Your task to perform on an android device: What's the weather going to be tomorrow? Image 0: 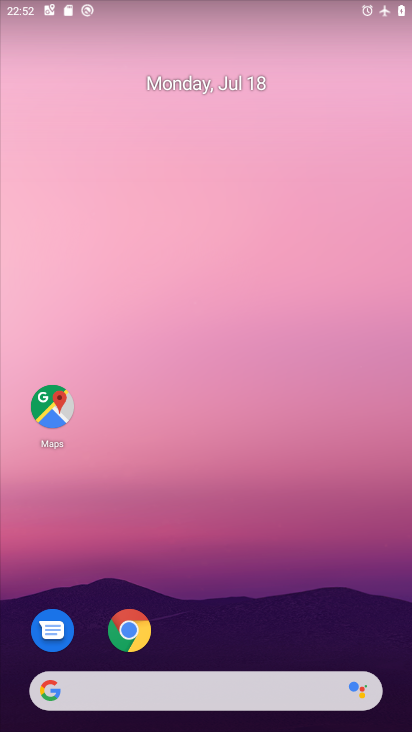
Step 0: drag from (199, 638) to (234, 189)
Your task to perform on an android device: What's the weather going to be tomorrow? Image 1: 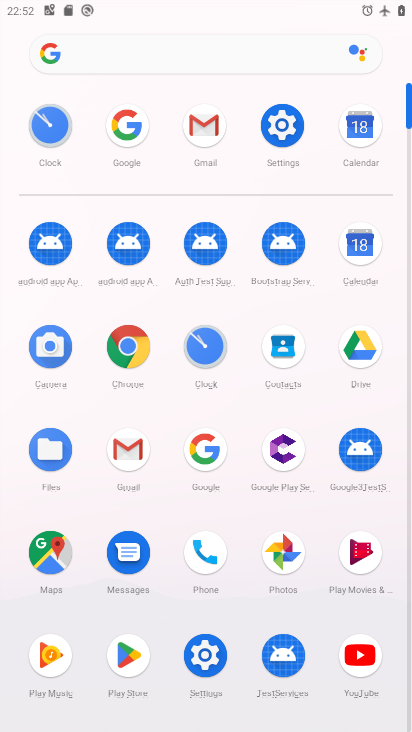
Step 1: click (192, 445)
Your task to perform on an android device: What's the weather going to be tomorrow? Image 2: 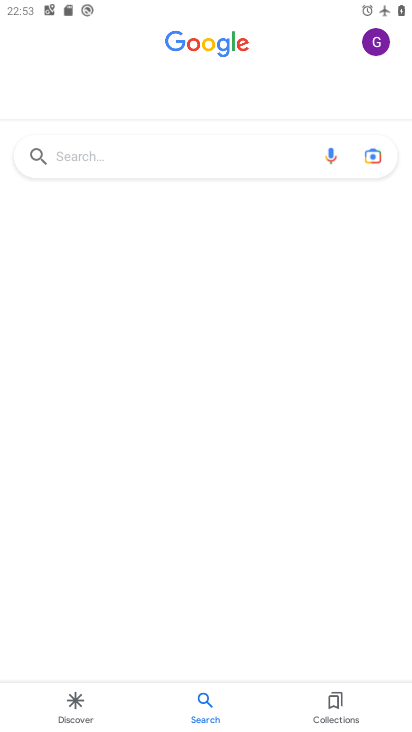
Step 2: click (153, 163)
Your task to perform on an android device: What's the weather going to be tomorrow? Image 3: 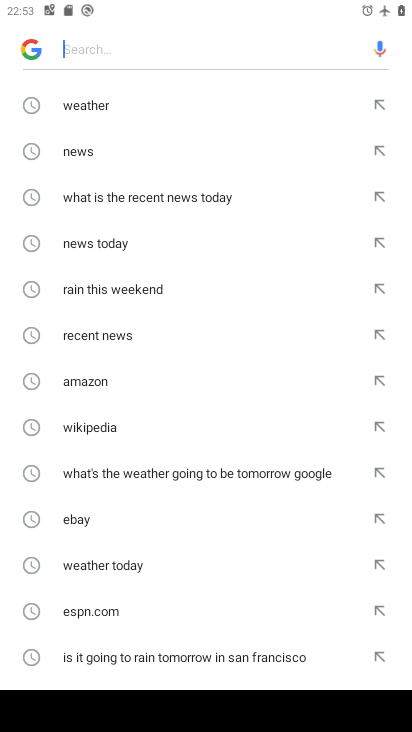
Step 3: click (107, 111)
Your task to perform on an android device: What's the weather going to be tomorrow? Image 4: 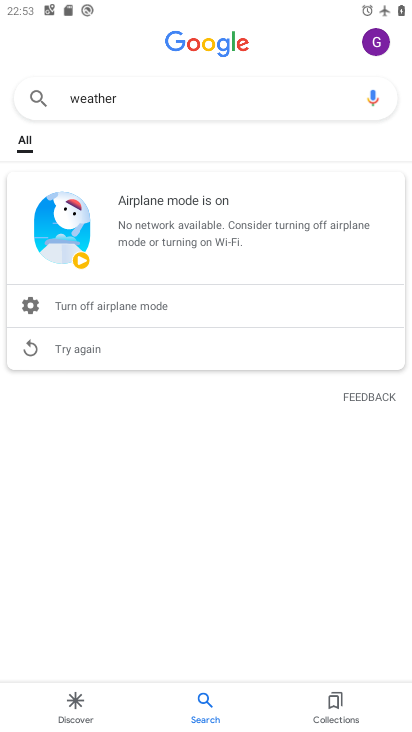
Step 4: task complete